Your task to perform on an android device: turn on showing notifications on the lock screen Image 0: 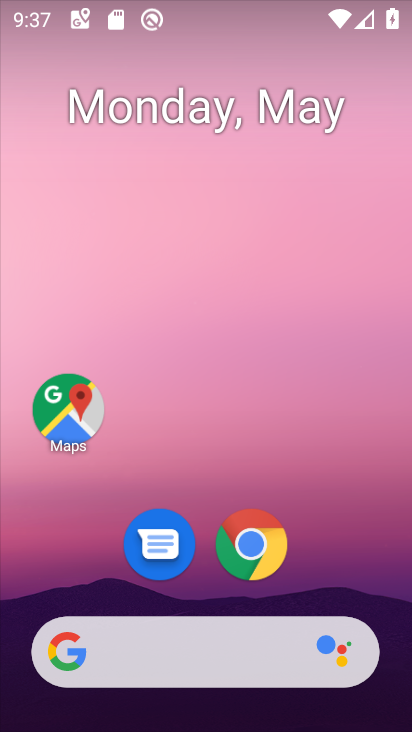
Step 0: drag from (368, 554) to (357, 101)
Your task to perform on an android device: turn on showing notifications on the lock screen Image 1: 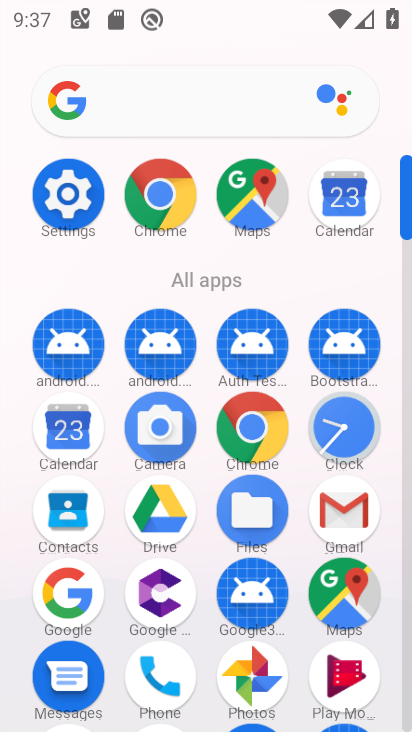
Step 1: click (68, 206)
Your task to perform on an android device: turn on showing notifications on the lock screen Image 2: 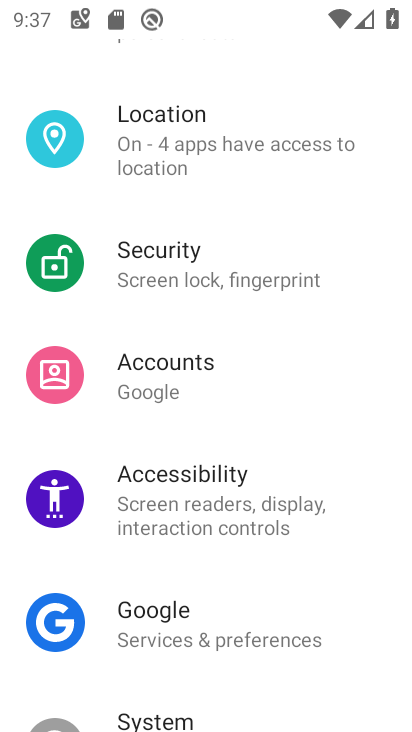
Step 2: drag from (354, 583) to (358, 319)
Your task to perform on an android device: turn on showing notifications on the lock screen Image 3: 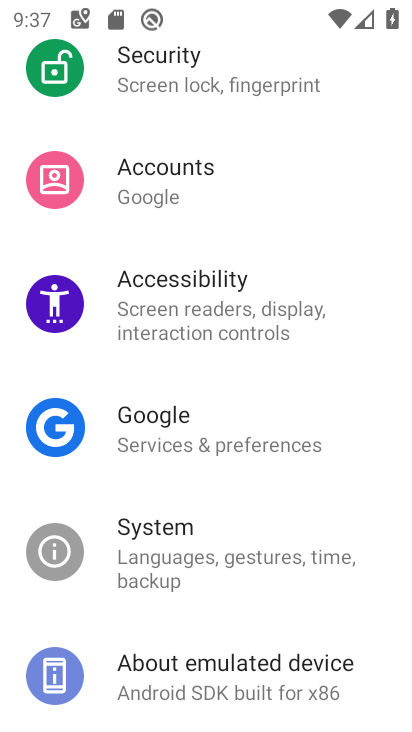
Step 3: drag from (354, 254) to (347, 626)
Your task to perform on an android device: turn on showing notifications on the lock screen Image 4: 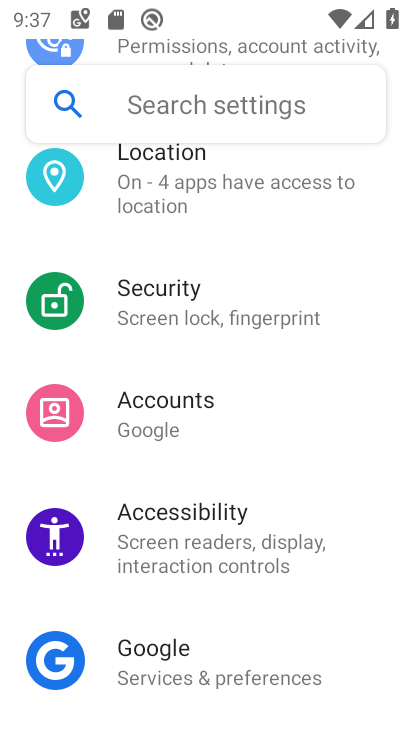
Step 4: drag from (308, 253) to (312, 589)
Your task to perform on an android device: turn on showing notifications on the lock screen Image 5: 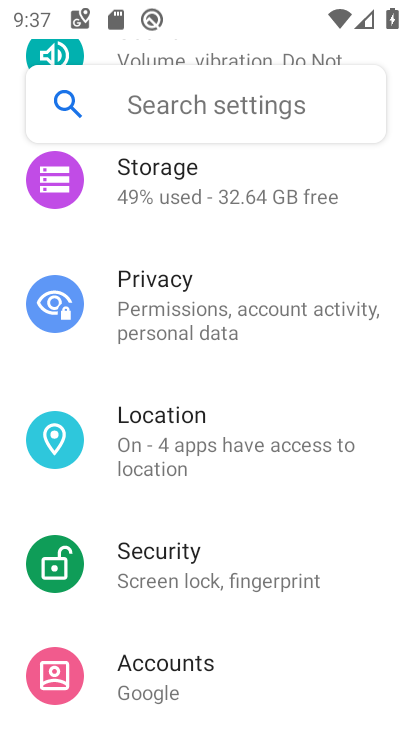
Step 5: drag from (298, 196) to (302, 613)
Your task to perform on an android device: turn on showing notifications on the lock screen Image 6: 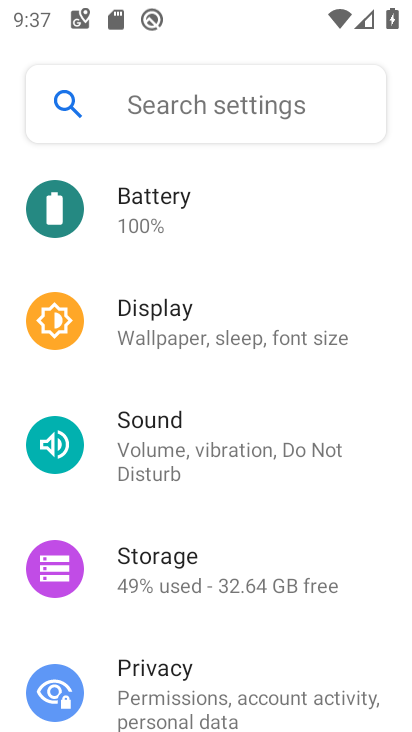
Step 6: drag from (280, 257) to (301, 641)
Your task to perform on an android device: turn on showing notifications on the lock screen Image 7: 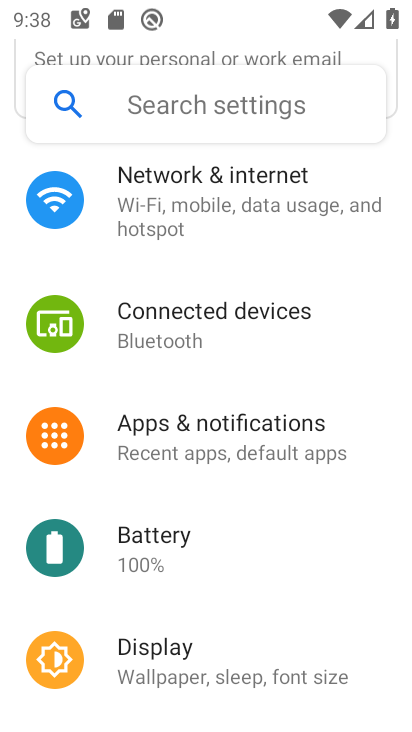
Step 7: click (234, 436)
Your task to perform on an android device: turn on showing notifications on the lock screen Image 8: 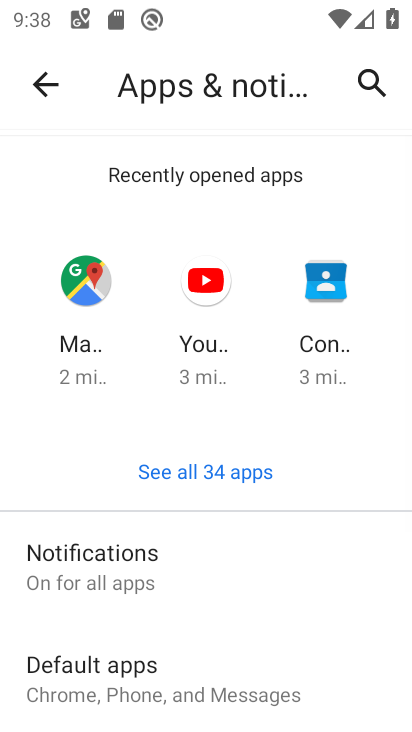
Step 8: drag from (282, 598) to (254, 211)
Your task to perform on an android device: turn on showing notifications on the lock screen Image 9: 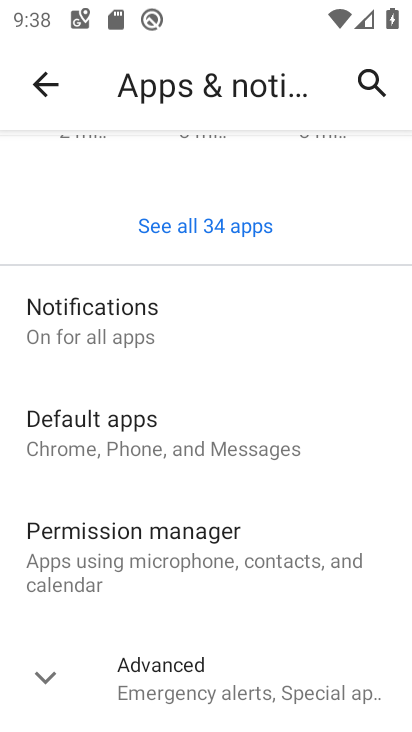
Step 9: click (176, 315)
Your task to perform on an android device: turn on showing notifications on the lock screen Image 10: 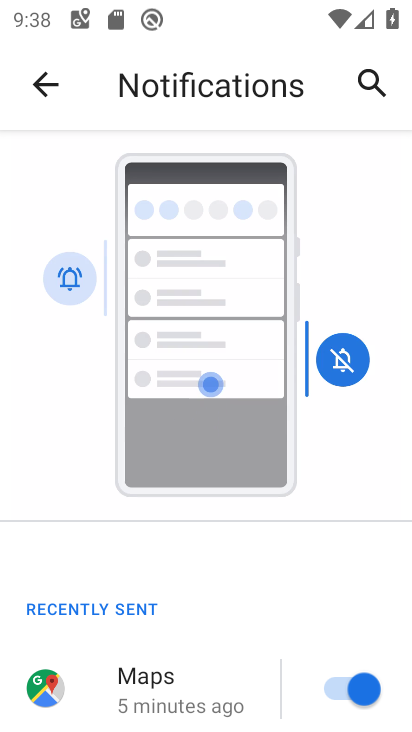
Step 10: drag from (180, 576) to (264, 207)
Your task to perform on an android device: turn on showing notifications on the lock screen Image 11: 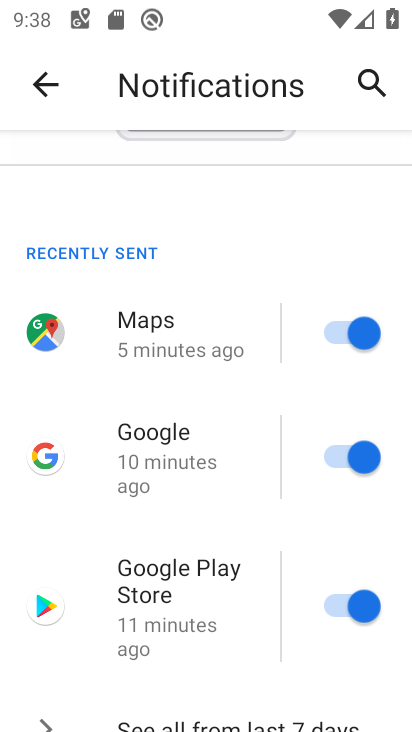
Step 11: drag from (227, 669) to (266, 247)
Your task to perform on an android device: turn on showing notifications on the lock screen Image 12: 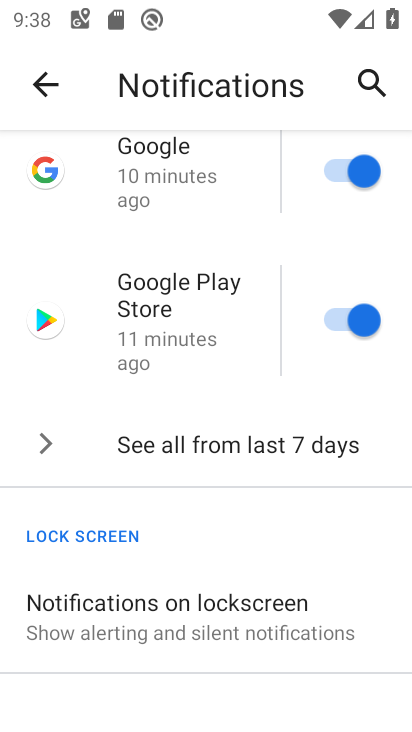
Step 12: click (249, 602)
Your task to perform on an android device: turn on showing notifications on the lock screen Image 13: 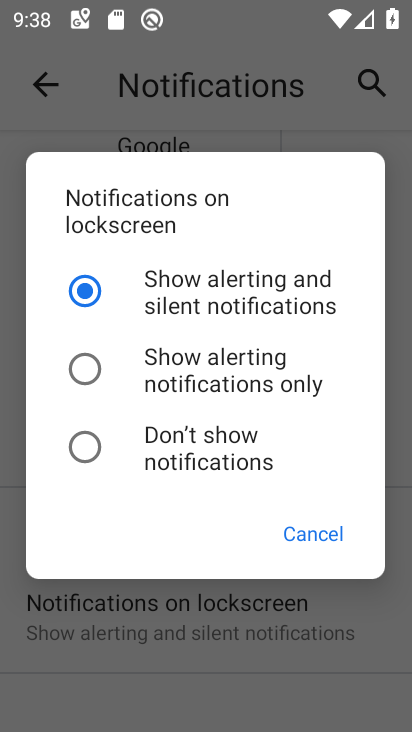
Step 13: task complete